Your task to perform on an android device: Open Android settings Image 0: 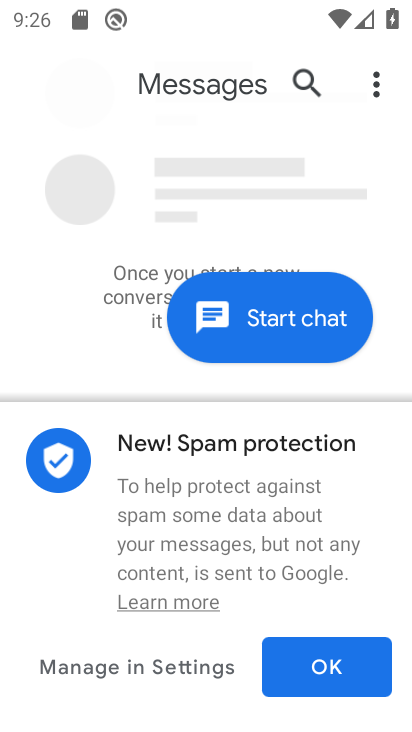
Step 0: press home button
Your task to perform on an android device: Open Android settings Image 1: 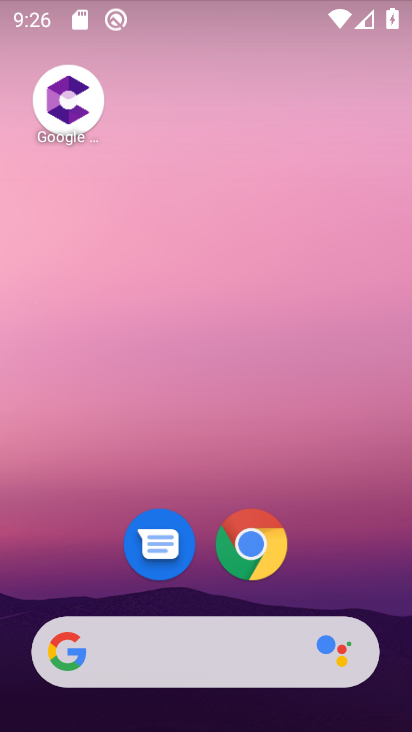
Step 1: drag from (338, 491) to (332, 253)
Your task to perform on an android device: Open Android settings Image 2: 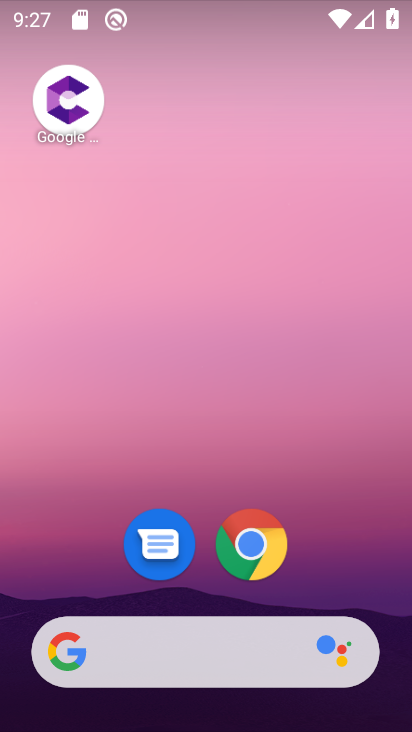
Step 2: drag from (361, 535) to (332, 237)
Your task to perform on an android device: Open Android settings Image 3: 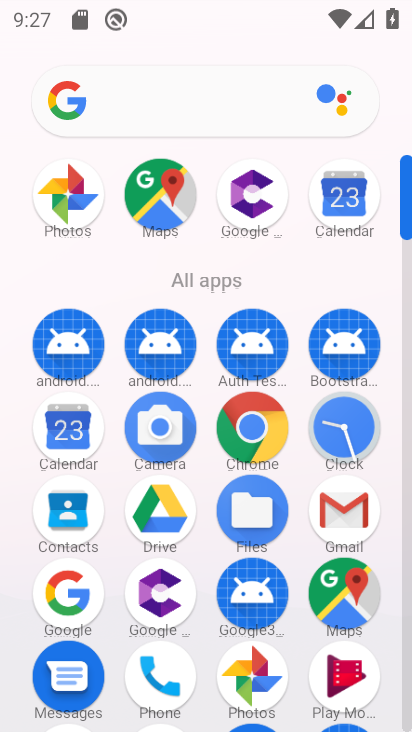
Step 3: drag from (190, 594) to (223, 262)
Your task to perform on an android device: Open Android settings Image 4: 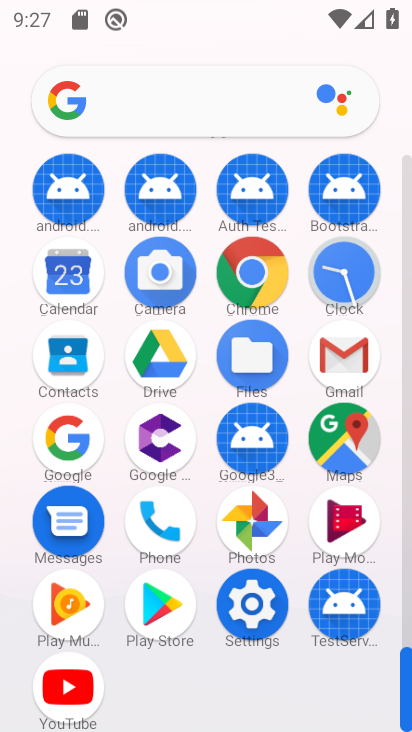
Step 4: click (251, 606)
Your task to perform on an android device: Open Android settings Image 5: 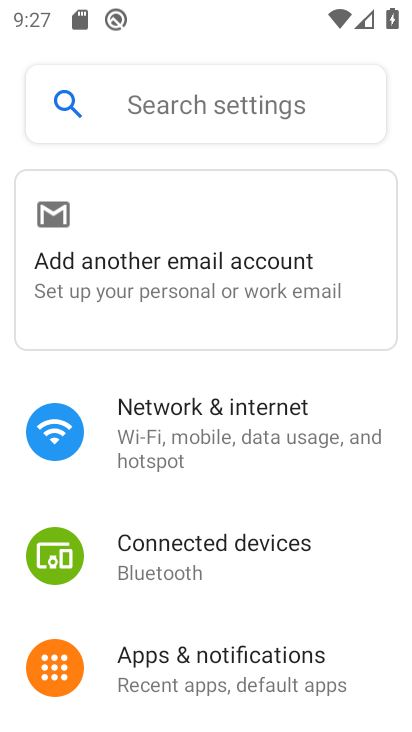
Step 5: drag from (251, 661) to (260, 307)
Your task to perform on an android device: Open Android settings Image 6: 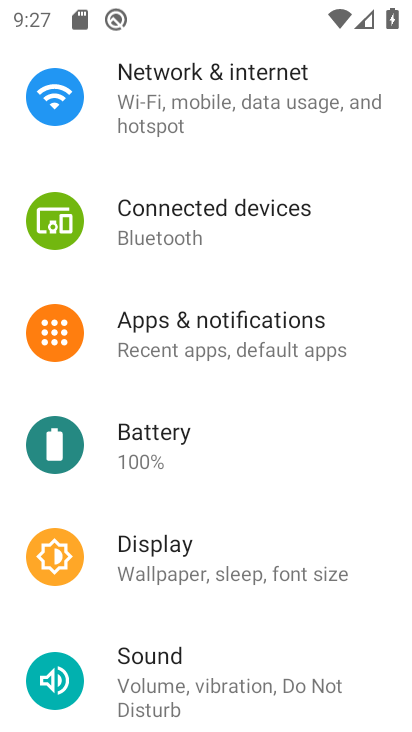
Step 6: drag from (238, 599) to (238, 302)
Your task to perform on an android device: Open Android settings Image 7: 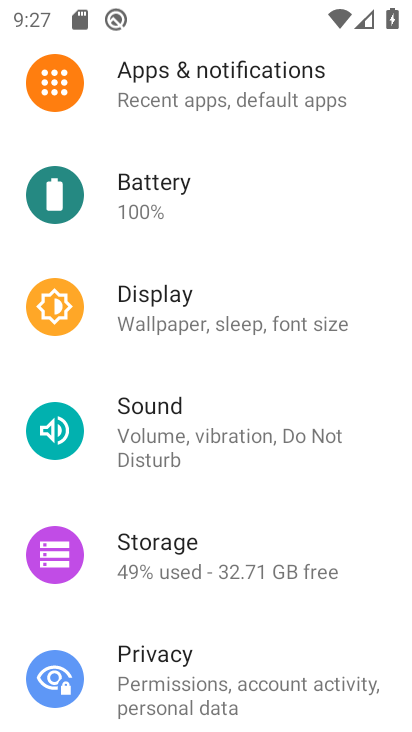
Step 7: drag from (283, 643) to (280, 242)
Your task to perform on an android device: Open Android settings Image 8: 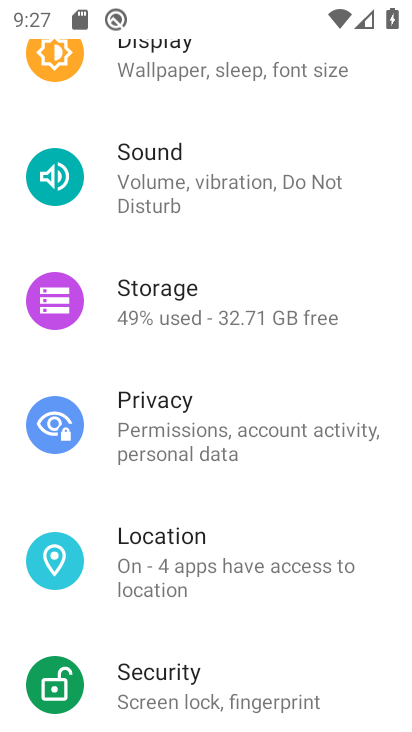
Step 8: drag from (299, 652) to (266, 232)
Your task to perform on an android device: Open Android settings Image 9: 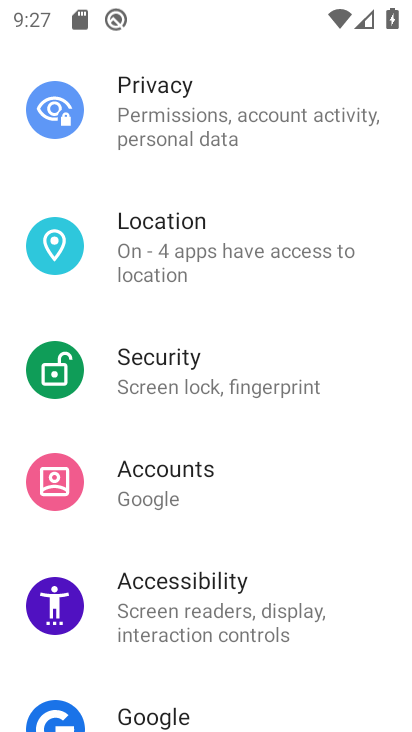
Step 9: drag from (284, 677) to (309, 274)
Your task to perform on an android device: Open Android settings Image 10: 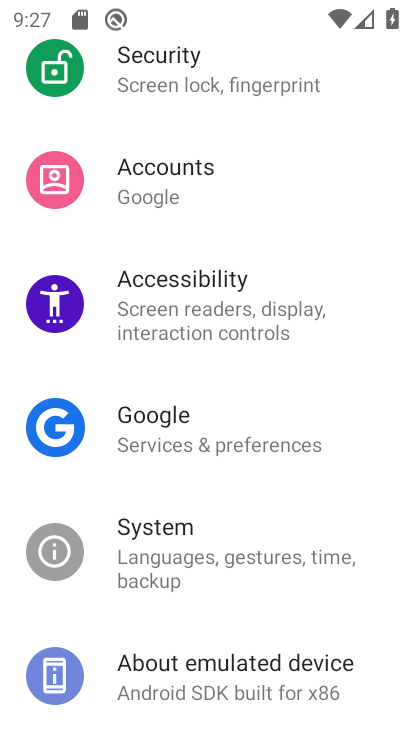
Step 10: drag from (307, 611) to (299, 250)
Your task to perform on an android device: Open Android settings Image 11: 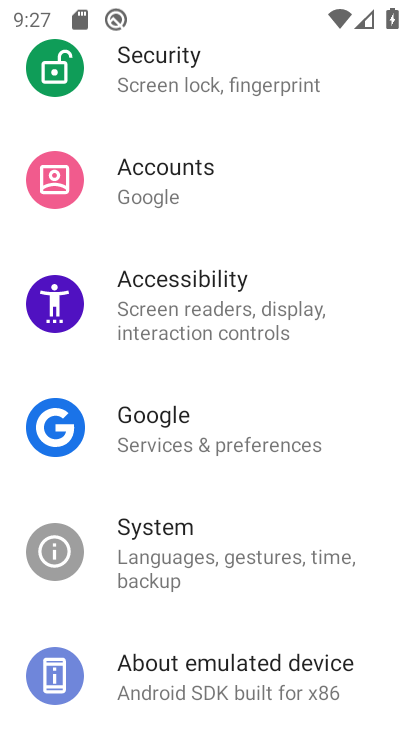
Step 11: click (286, 662)
Your task to perform on an android device: Open Android settings Image 12: 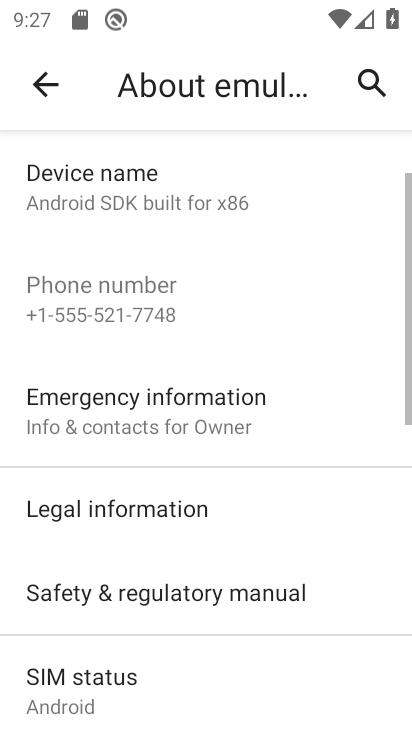
Step 12: drag from (197, 662) to (237, 270)
Your task to perform on an android device: Open Android settings Image 13: 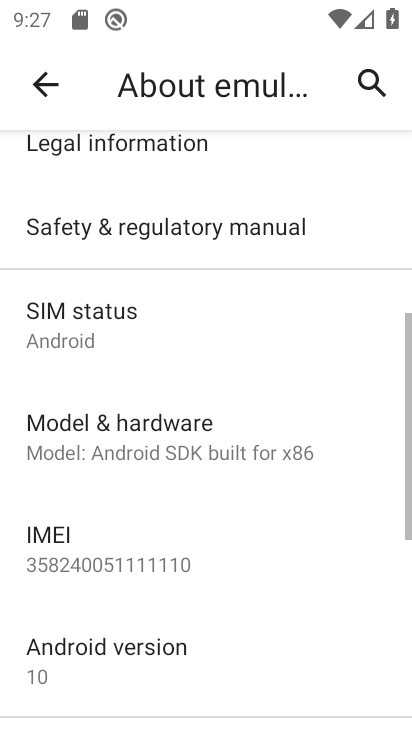
Step 13: drag from (231, 610) to (272, 298)
Your task to perform on an android device: Open Android settings Image 14: 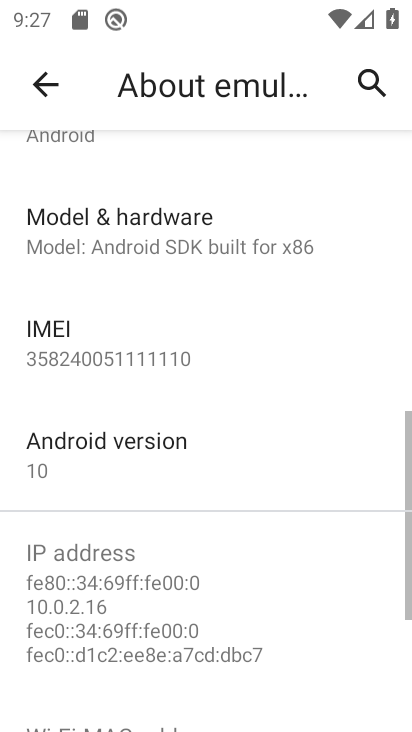
Step 14: click (155, 461)
Your task to perform on an android device: Open Android settings Image 15: 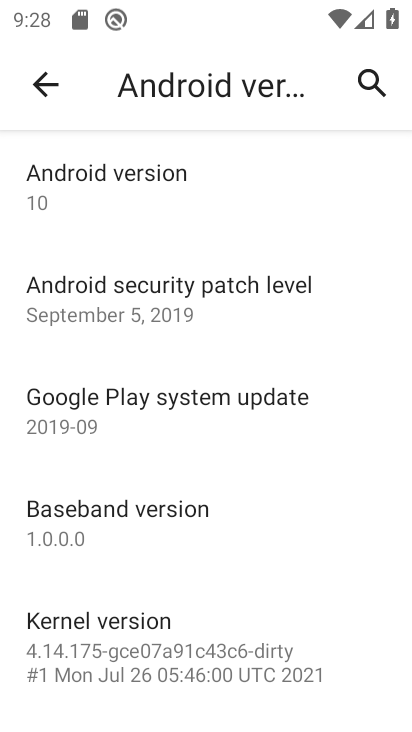
Step 15: task complete